Your task to perform on an android device: open the mobile data screen to see how much data has been used Image 0: 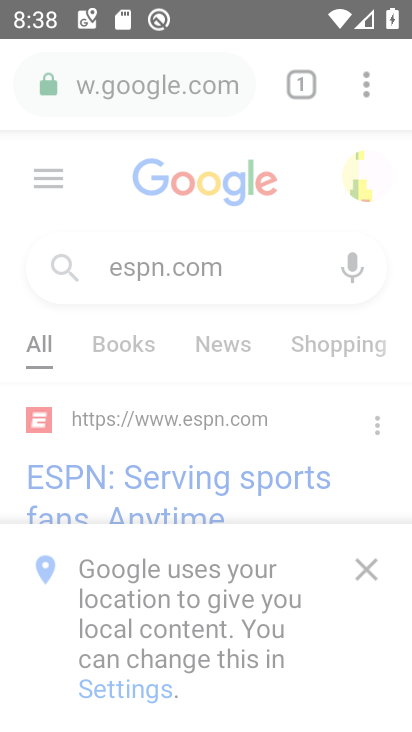
Step 0: drag from (352, 554) to (368, 360)
Your task to perform on an android device: open the mobile data screen to see how much data has been used Image 1: 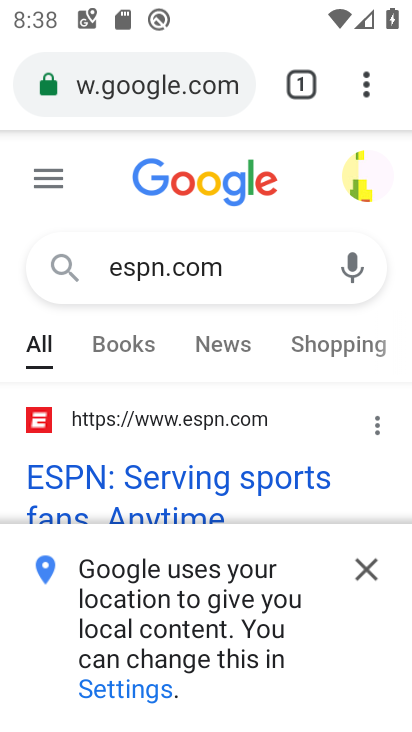
Step 1: press home button
Your task to perform on an android device: open the mobile data screen to see how much data has been used Image 2: 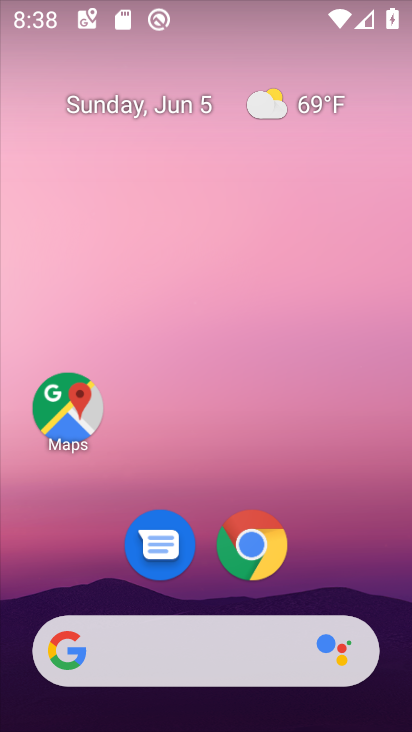
Step 2: drag from (365, 504) to (351, 247)
Your task to perform on an android device: open the mobile data screen to see how much data has been used Image 3: 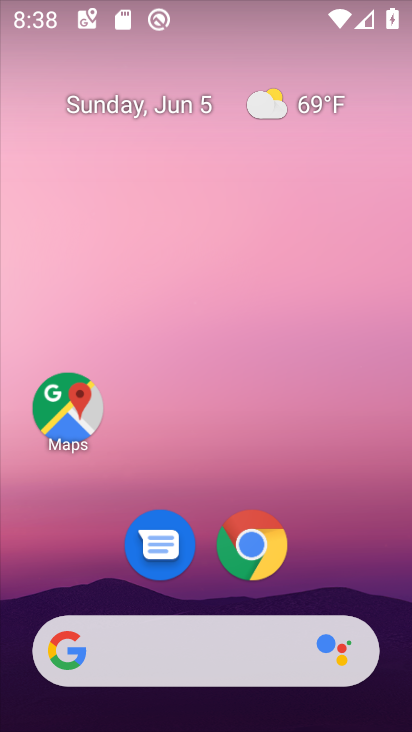
Step 3: drag from (348, 554) to (371, 139)
Your task to perform on an android device: open the mobile data screen to see how much data has been used Image 4: 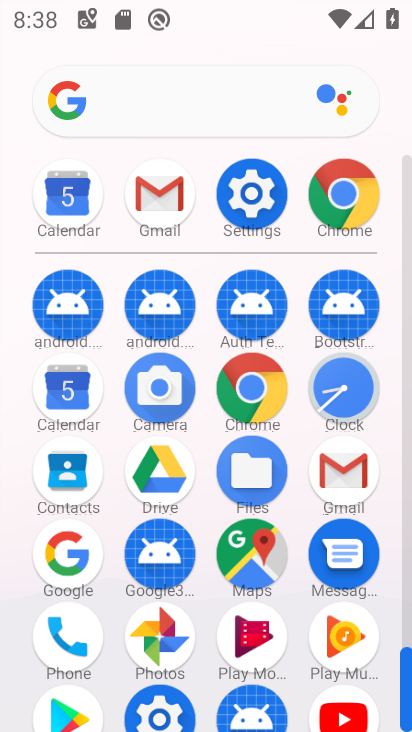
Step 4: click (274, 208)
Your task to perform on an android device: open the mobile data screen to see how much data has been used Image 5: 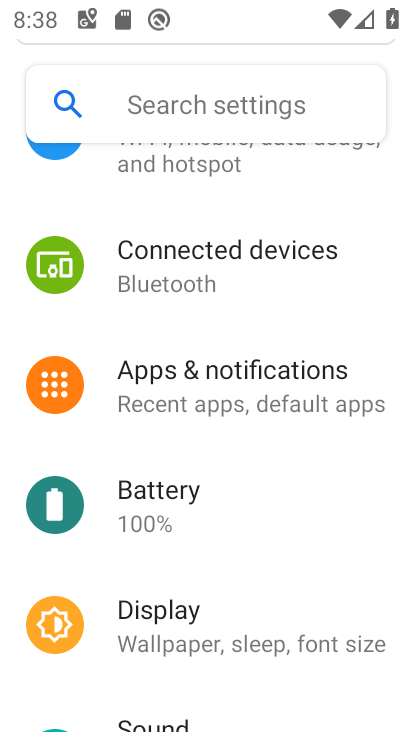
Step 5: drag from (352, 497) to (360, 390)
Your task to perform on an android device: open the mobile data screen to see how much data has been used Image 6: 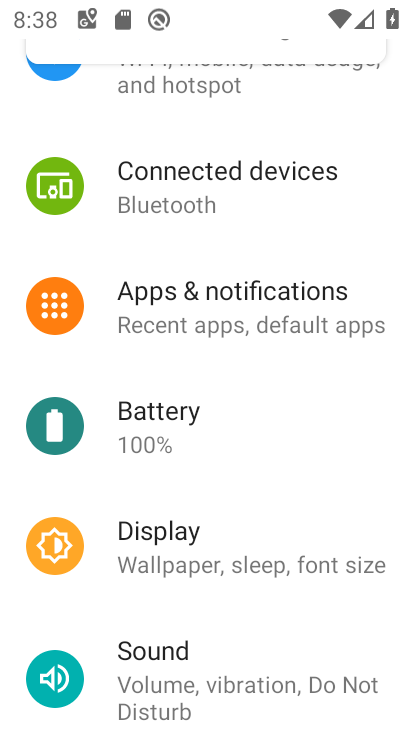
Step 6: drag from (318, 595) to (332, 462)
Your task to perform on an android device: open the mobile data screen to see how much data has been used Image 7: 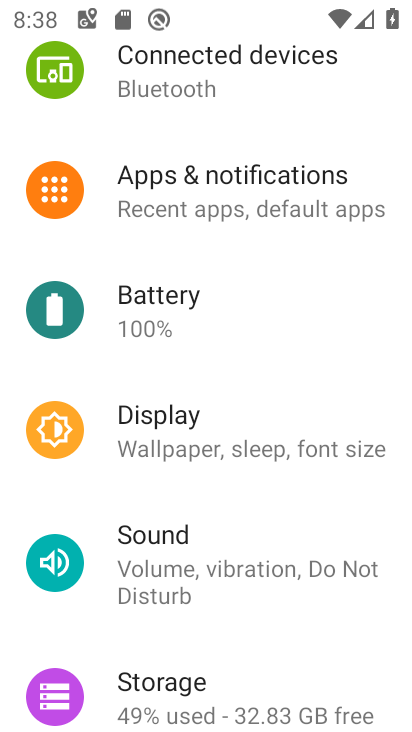
Step 7: drag from (334, 637) to (335, 489)
Your task to perform on an android device: open the mobile data screen to see how much data has been used Image 8: 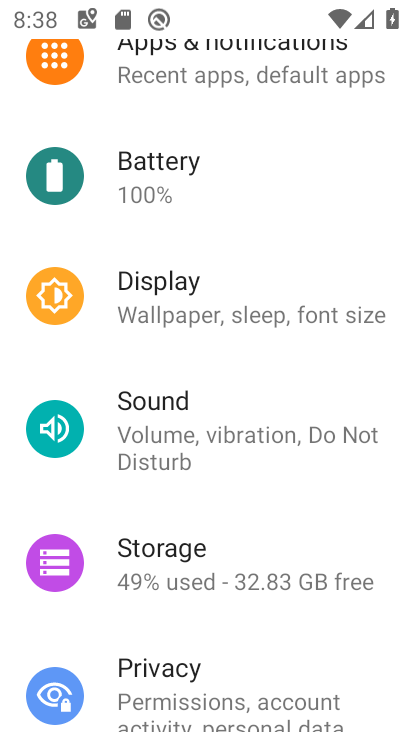
Step 8: drag from (334, 629) to (340, 498)
Your task to perform on an android device: open the mobile data screen to see how much data has been used Image 9: 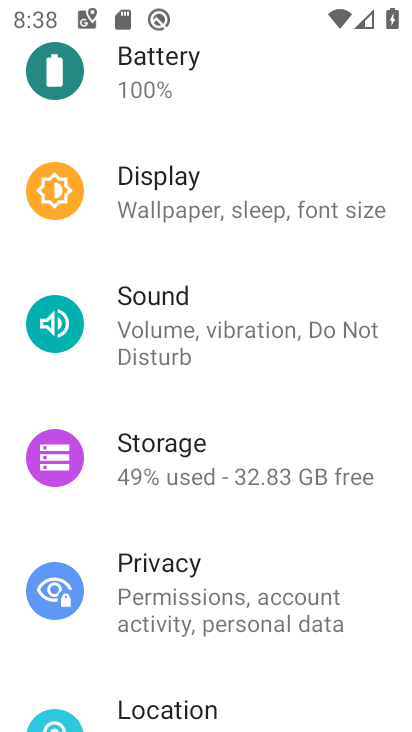
Step 9: drag from (337, 655) to (328, 501)
Your task to perform on an android device: open the mobile data screen to see how much data has been used Image 10: 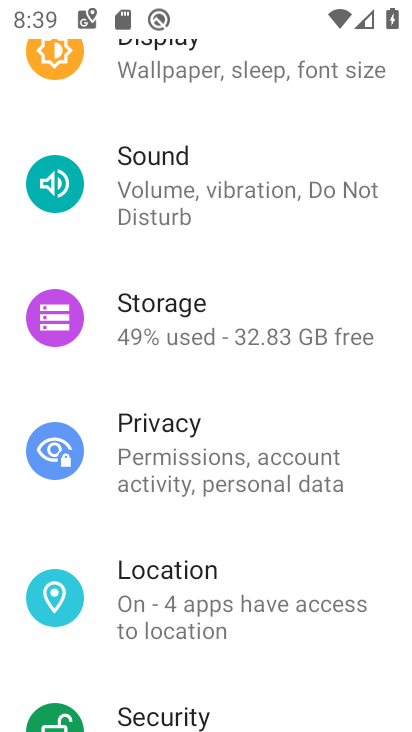
Step 10: drag from (374, 637) to (393, 484)
Your task to perform on an android device: open the mobile data screen to see how much data has been used Image 11: 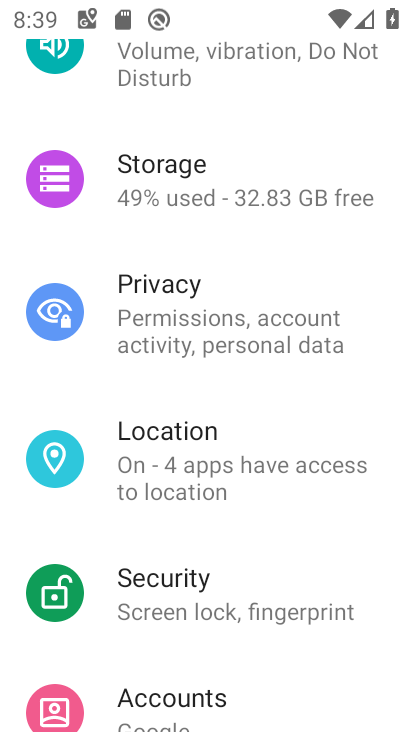
Step 11: drag from (364, 646) to (366, 515)
Your task to perform on an android device: open the mobile data screen to see how much data has been used Image 12: 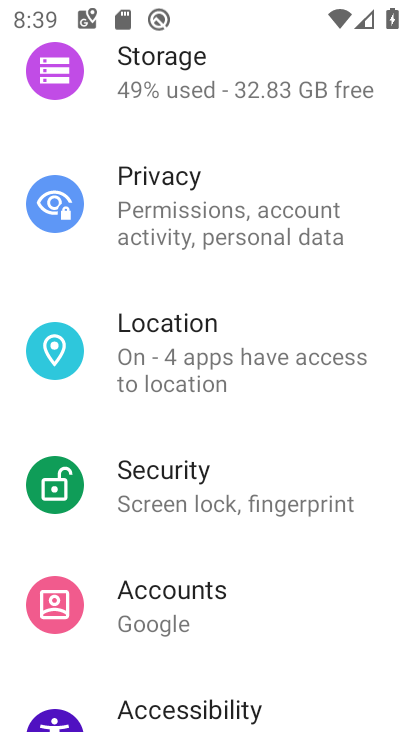
Step 12: drag from (352, 636) to (363, 500)
Your task to perform on an android device: open the mobile data screen to see how much data has been used Image 13: 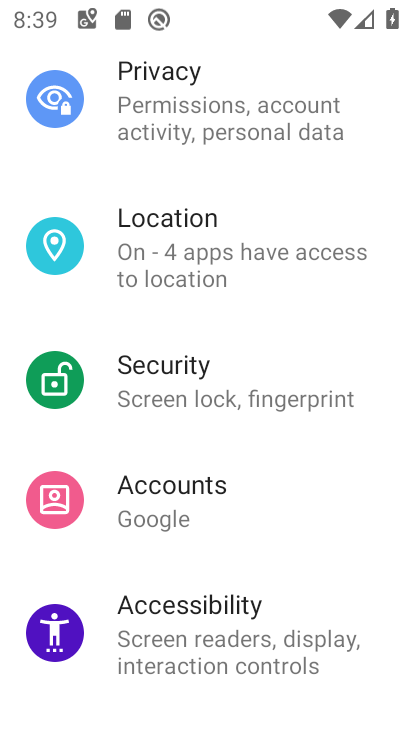
Step 13: drag from (360, 663) to (346, 480)
Your task to perform on an android device: open the mobile data screen to see how much data has been used Image 14: 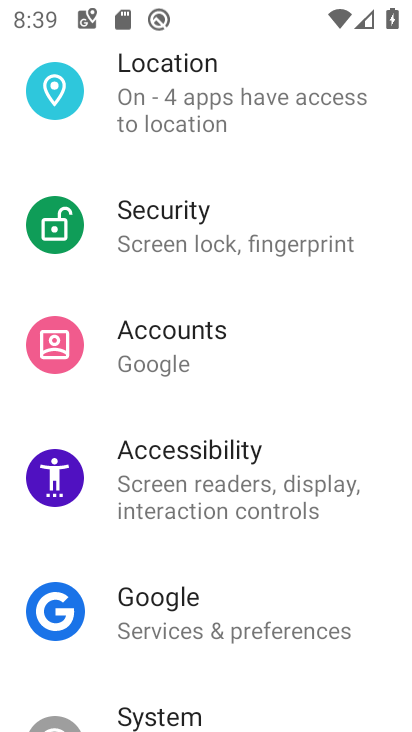
Step 14: drag from (351, 552) to (352, 322)
Your task to perform on an android device: open the mobile data screen to see how much data has been used Image 15: 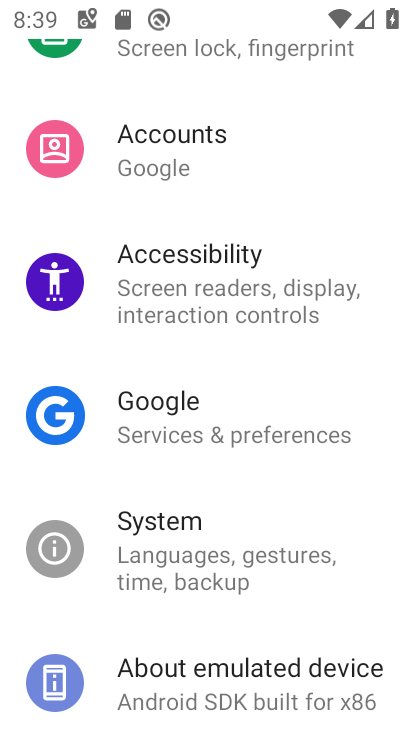
Step 15: drag from (369, 203) to (374, 405)
Your task to perform on an android device: open the mobile data screen to see how much data has been used Image 16: 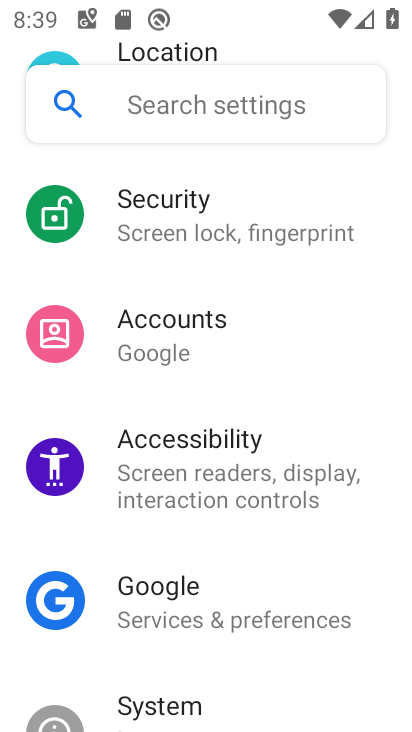
Step 16: drag from (356, 294) to (358, 419)
Your task to perform on an android device: open the mobile data screen to see how much data has been used Image 17: 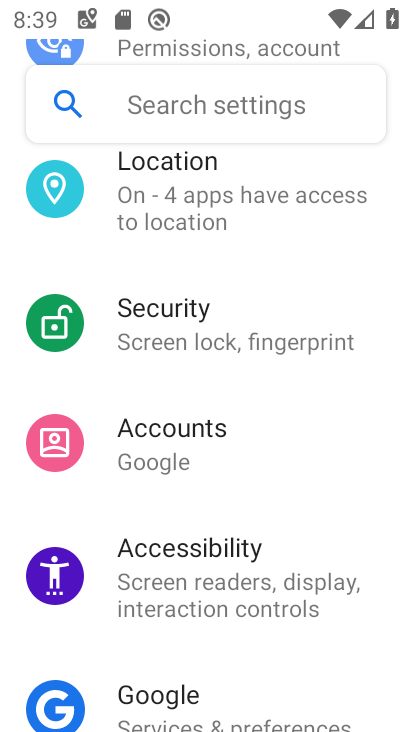
Step 17: drag from (348, 246) to (347, 431)
Your task to perform on an android device: open the mobile data screen to see how much data has been used Image 18: 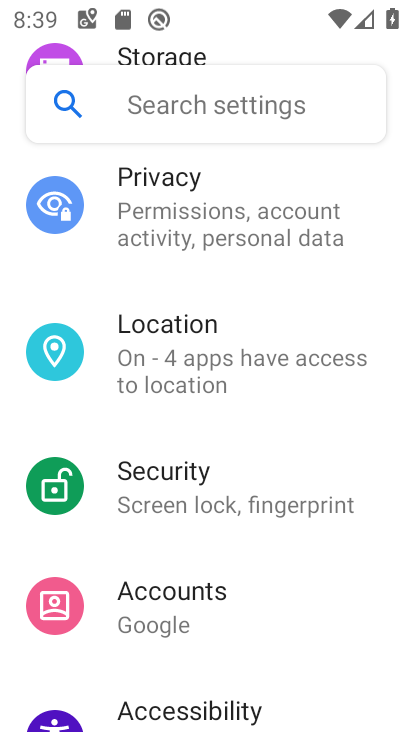
Step 18: drag from (372, 219) to (380, 354)
Your task to perform on an android device: open the mobile data screen to see how much data has been used Image 19: 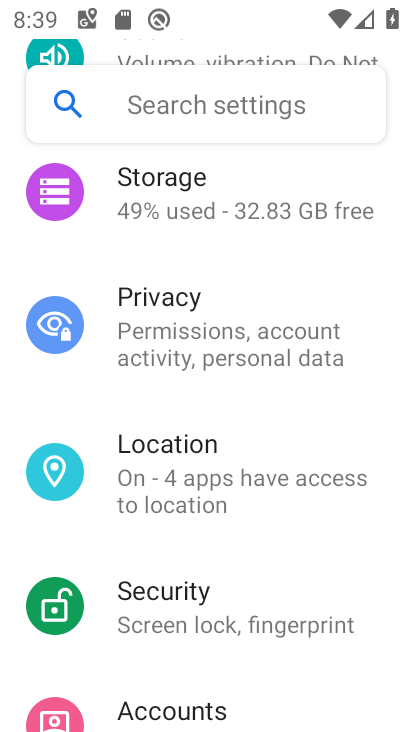
Step 19: drag from (362, 260) to (378, 386)
Your task to perform on an android device: open the mobile data screen to see how much data has been used Image 20: 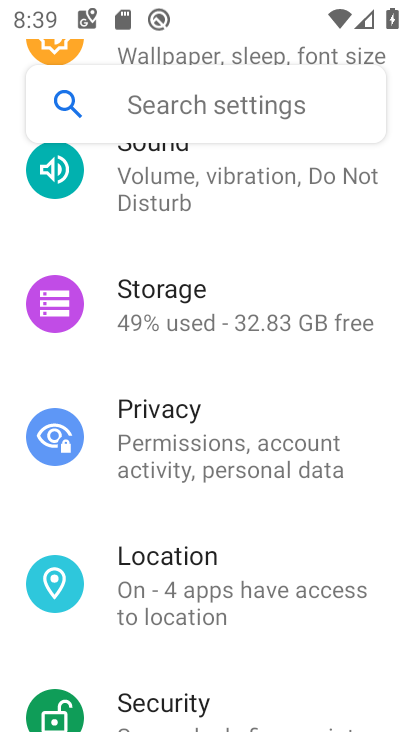
Step 20: drag from (362, 241) to (365, 372)
Your task to perform on an android device: open the mobile data screen to see how much data has been used Image 21: 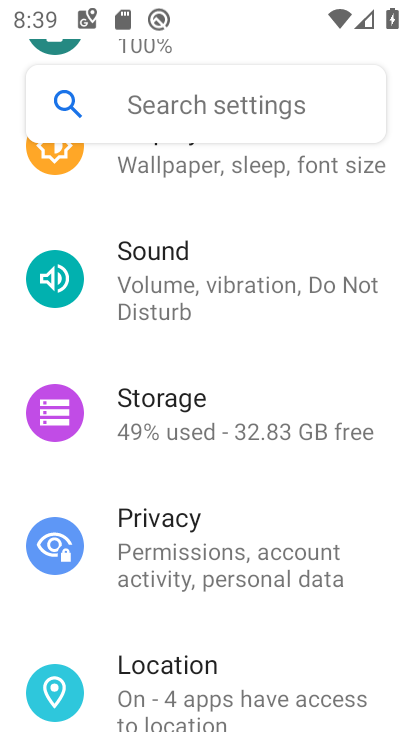
Step 21: drag from (363, 229) to (364, 346)
Your task to perform on an android device: open the mobile data screen to see how much data has been used Image 22: 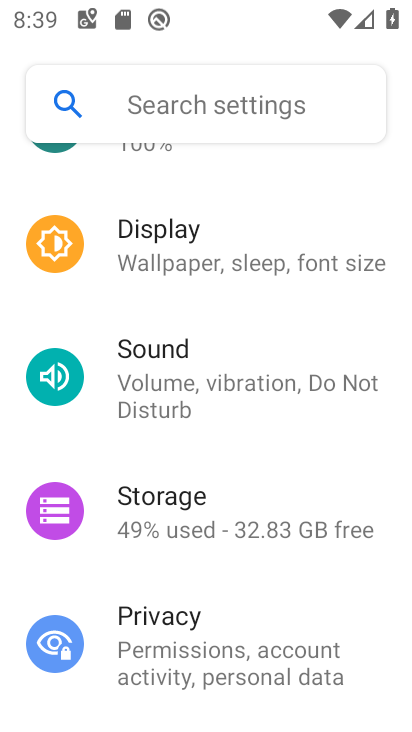
Step 22: drag from (353, 210) to (357, 398)
Your task to perform on an android device: open the mobile data screen to see how much data has been used Image 23: 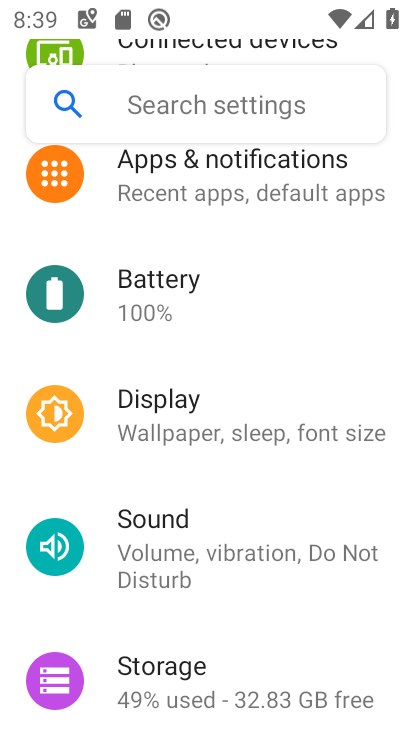
Step 23: drag from (348, 259) to (342, 449)
Your task to perform on an android device: open the mobile data screen to see how much data has been used Image 24: 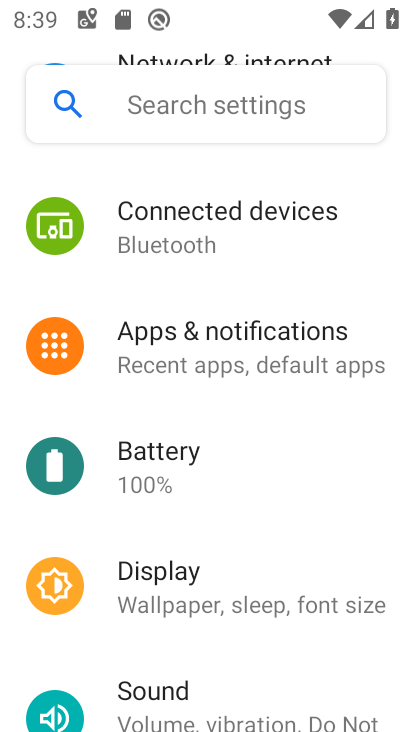
Step 24: drag from (373, 263) to (371, 433)
Your task to perform on an android device: open the mobile data screen to see how much data has been used Image 25: 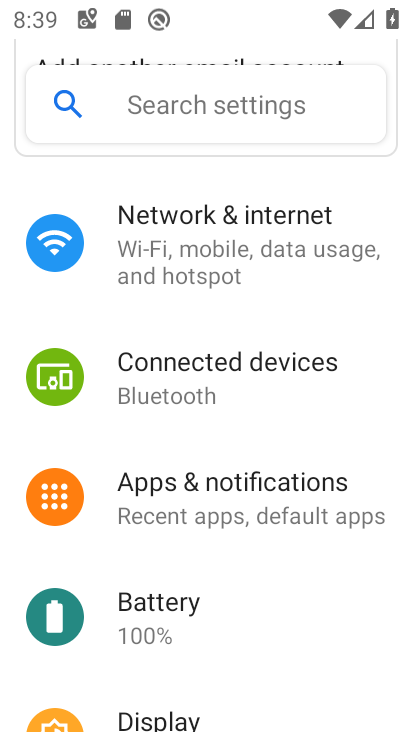
Step 25: click (291, 276)
Your task to perform on an android device: open the mobile data screen to see how much data has been used Image 26: 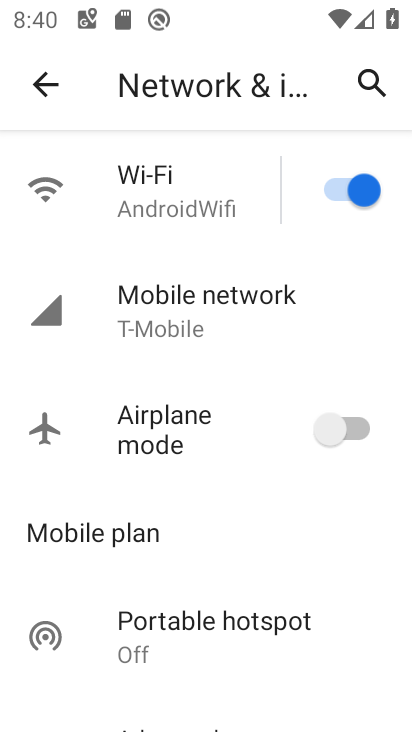
Step 26: click (234, 325)
Your task to perform on an android device: open the mobile data screen to see how much data has been used Image 27: 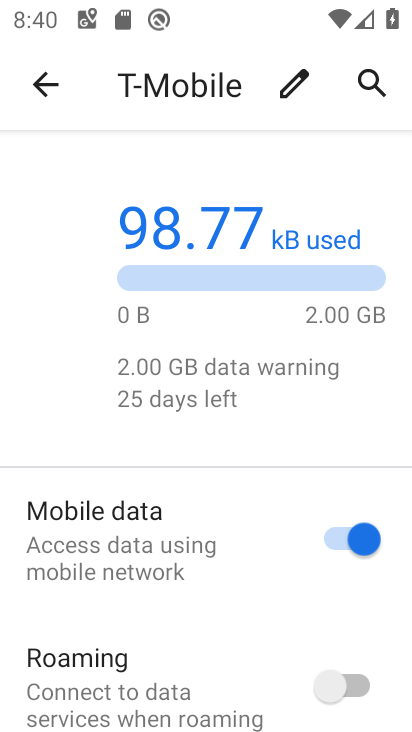
Step 27: drag from (241, 495) to (247, 346)
Your task to perform on an android device: open the mobile data screen to see how much data has been used Image 28: 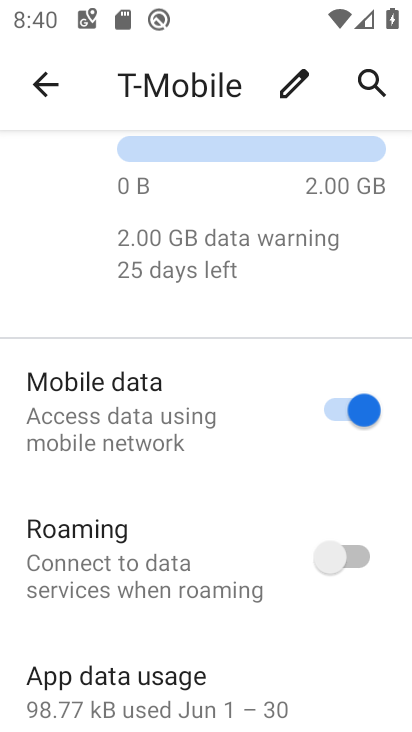
Step 28: drag from (262, 497) to (267, 311)
Your task to perform on an android device: open the mobile data screen to see how much data has been used Image 29: 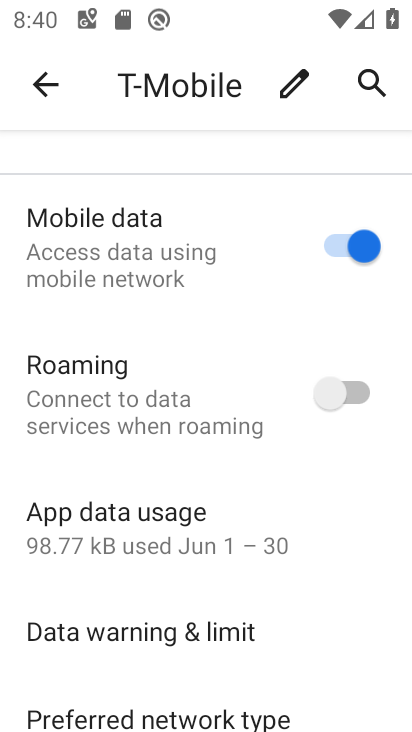
Step 29: click (214, 543)
Your task to perform on an android device: open the mobile data screen to see how much data has been used Image 30: 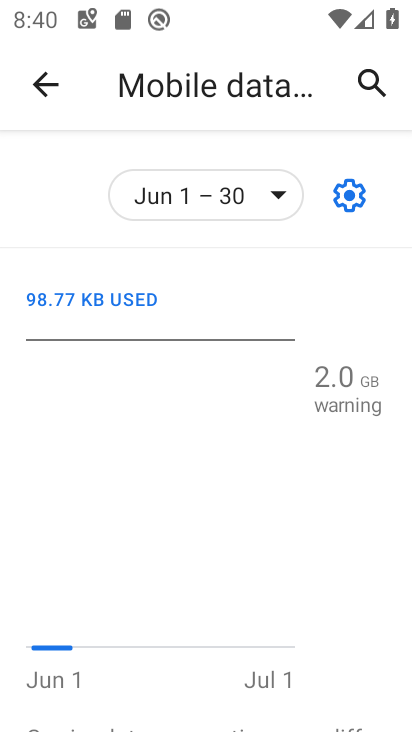
Step 30: task complete